Your task to perform on an android device: change the clock style Image 0: 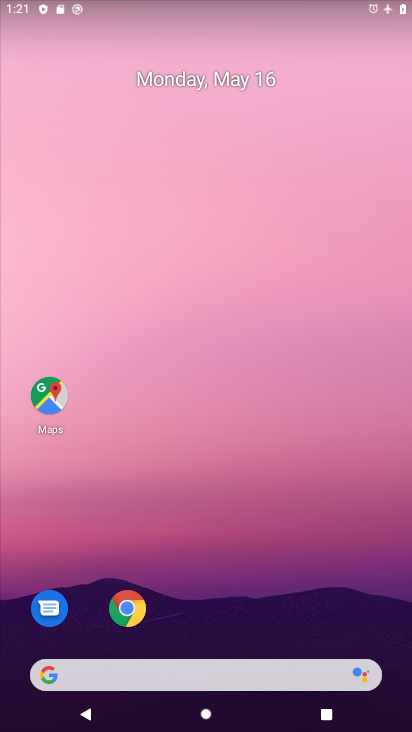
Step 0: drag from (215, 554) to (192, 135)
Your task to perform on an android device: change the clock style Image 1: 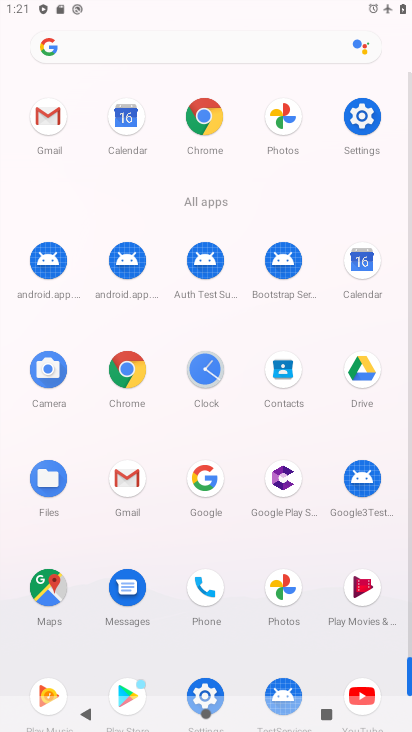
Step 1: click (205, 375)
Your task to perform on an android device: change the clock style Image 2: 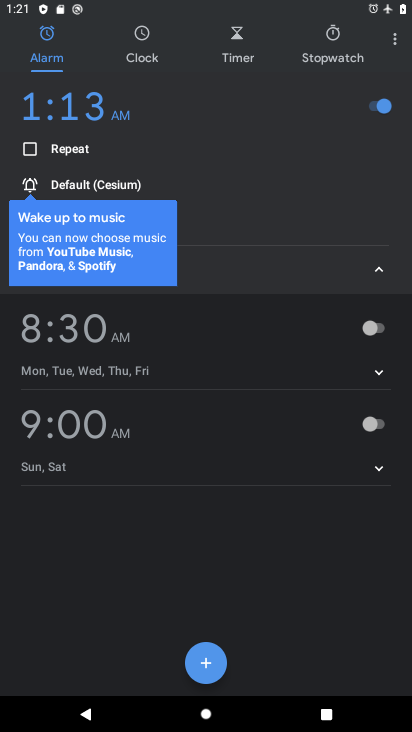
Step 2: drag from (400, 46) to (399, 85)
Your task to perform on an android device: change the clock style Image 3: 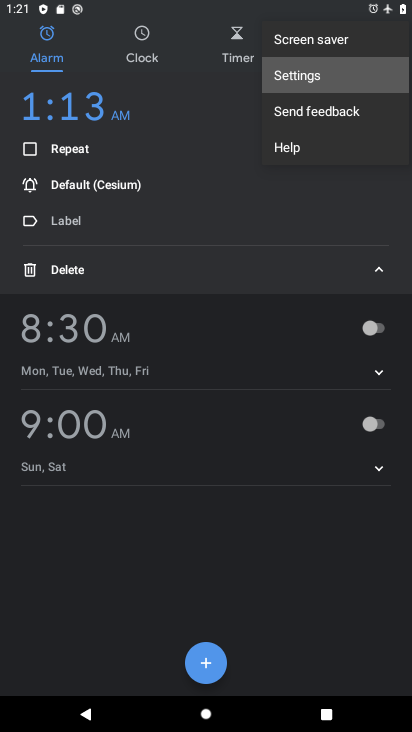
Step 3: click (397, 40)
Your task to perform on an android device: change the clock style Image 4: 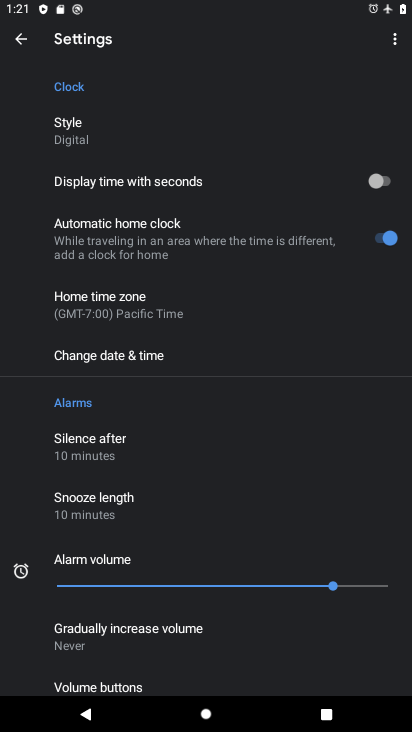
Step 4: click (212, 125)
Your task to perform on an android device: change the clock style Image 5: 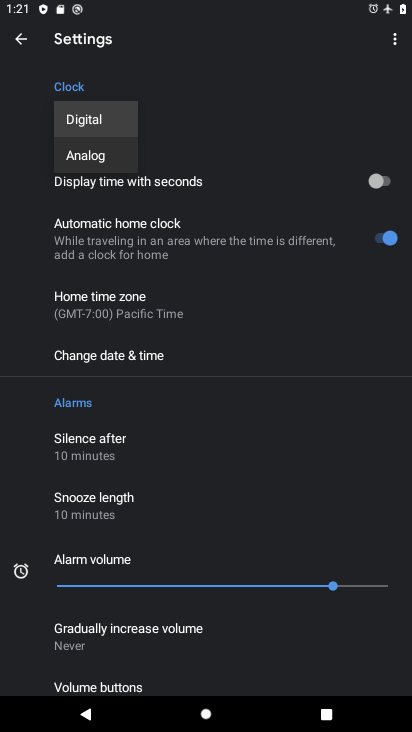
Step 5: click (92, 157)
Your task to perform on an android device: change the clock style Image 6: 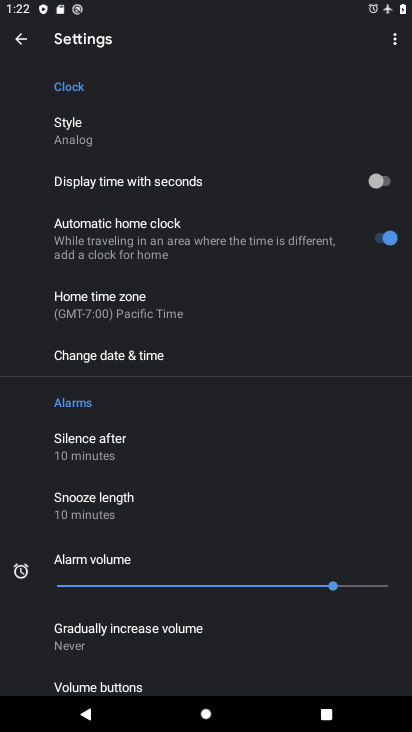
Step 6: task complete